Your task to perform on an android device: See recent photos Image 0: 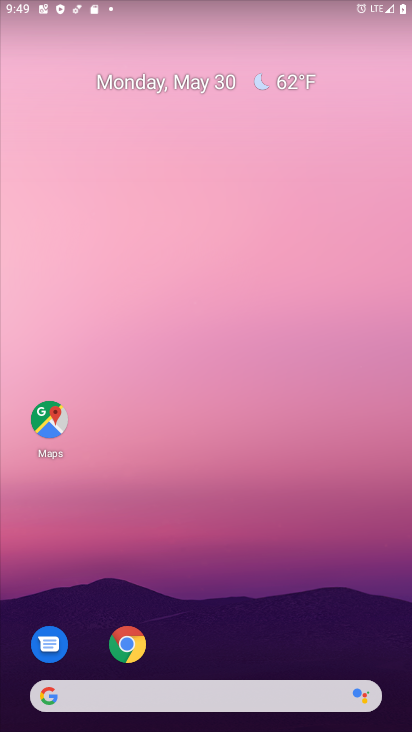
Step 0: drag from (404, 645) to (323, 29)
Your task to perform on an android device: See recent photos Image 1: 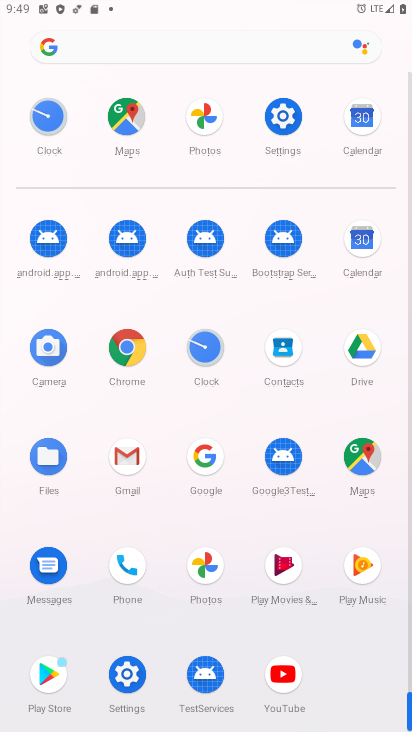
Step 1: click (205, 563)
Your task to perform on an android device: See recent photos Image 2: 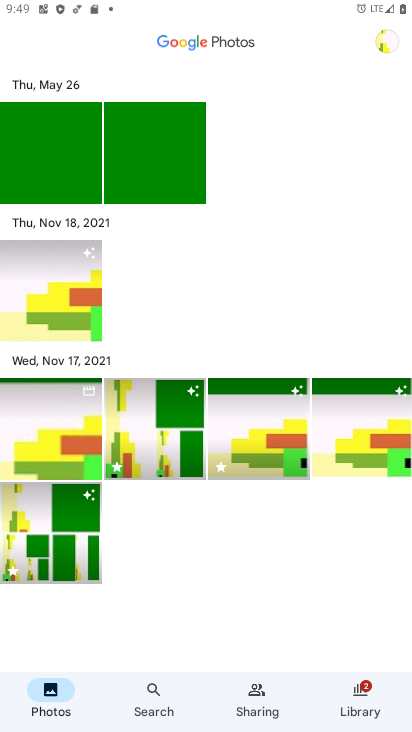
Step 2: task complete